Your task to perform on an android device: turn on data saver in the chrome app Image 0: 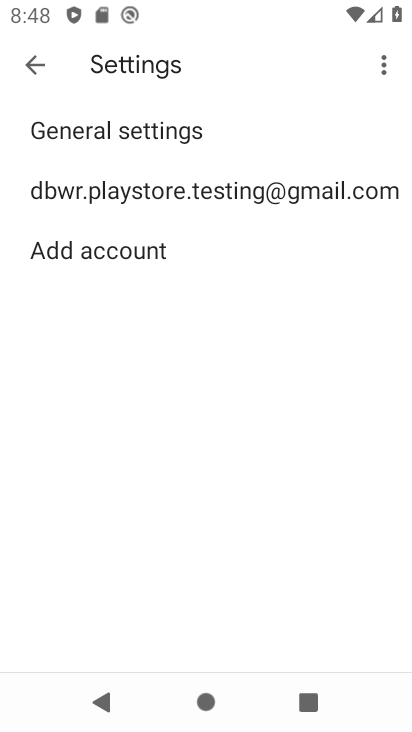
Step 0: press home button
Your task to perform on an android device: turn on data saver in the chrome app Image 1: 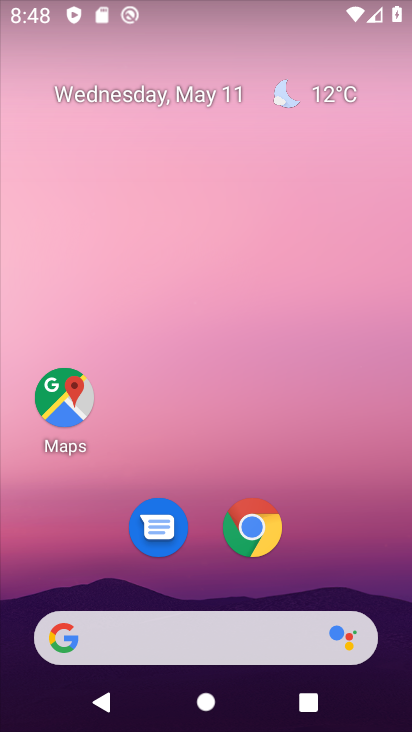
Step 1: click (249, 521)
Your task to perform on an android device: turn on data saver in the chrome app Image 2: 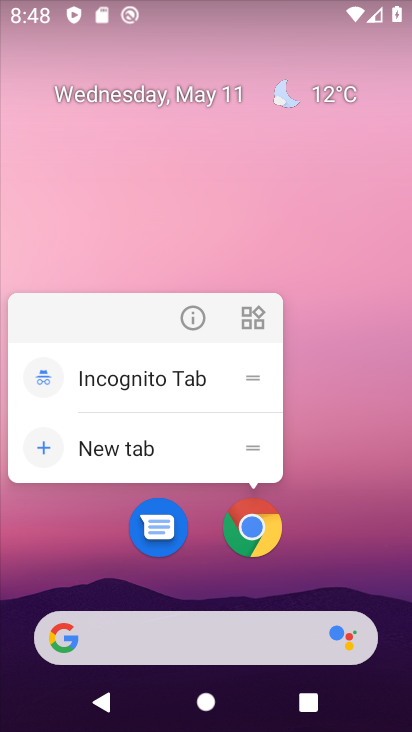
Step 2: click (253, 529)
Your task to perform on an android device: turn on data saver in the chrome app Image 3: 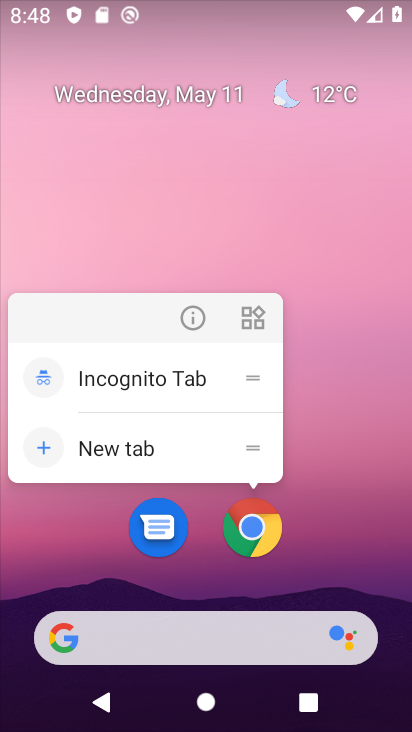
Step 3: click (260, 531)
Your task to perform on an android device: turn on data saver in the chrome app Image 4: 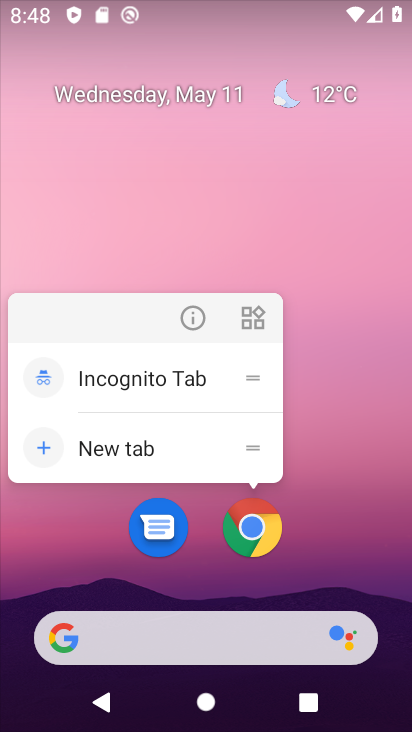
Step 4: drag from (366, 526) to (372, 2)
Your task to perform on an android device: turn on data saver in the chrome app Image 5: 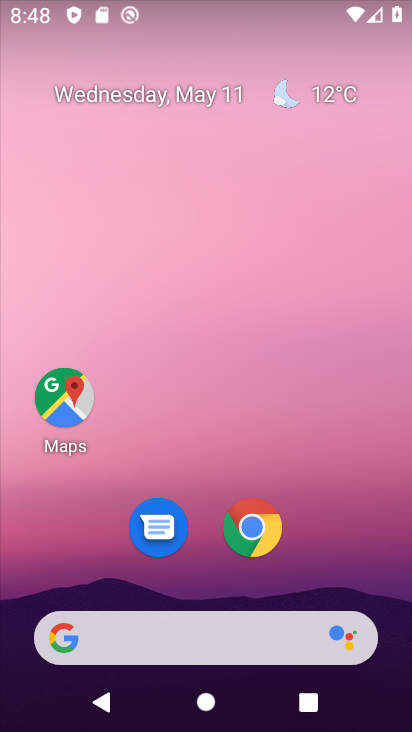
Step 5: drag from (312, 515) to (350, 84)
Your task to perform on an android device: turn on data saver in the chrome app Image 6: 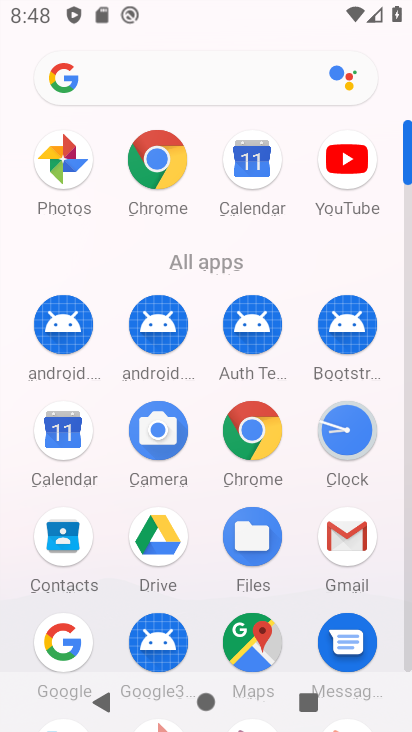
Step 6: click (160, 167)
Your task to perform on an android device: turn on data saver in the chrome app Image 7: 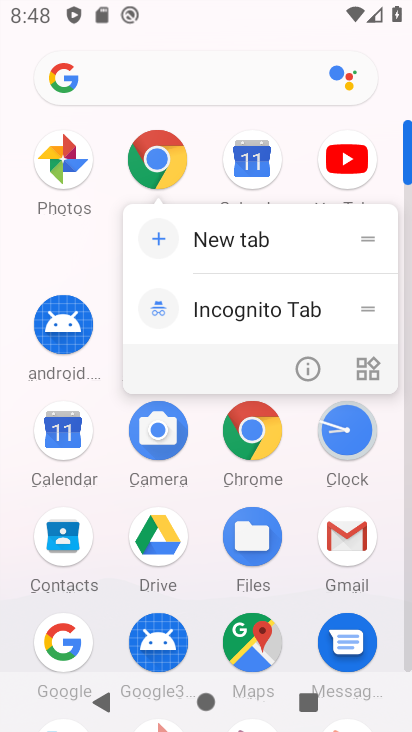
Step 7: click (258, 433)
Your task to perform on an android device: turn on data saver in the chrome app Image 8: 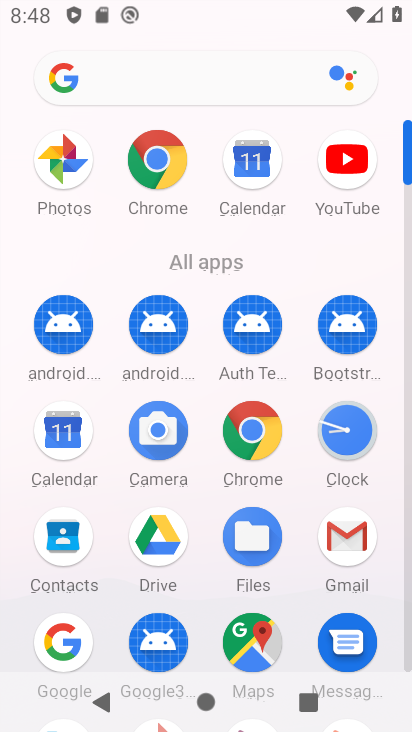
Step 8: click (258, 433)
Your task to perform on an android device: turn on data saver in the chrome app Image 9: 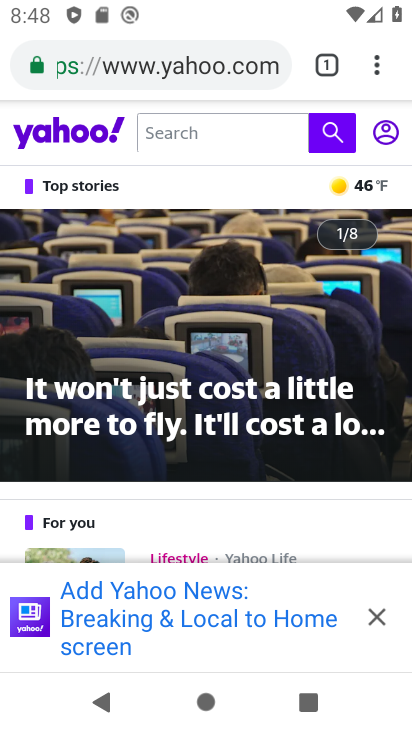
Step 9: drag from (375, 63) to (177, 576)
Your task to perform on an android device: turn on data saver in the chrome app Image 10: 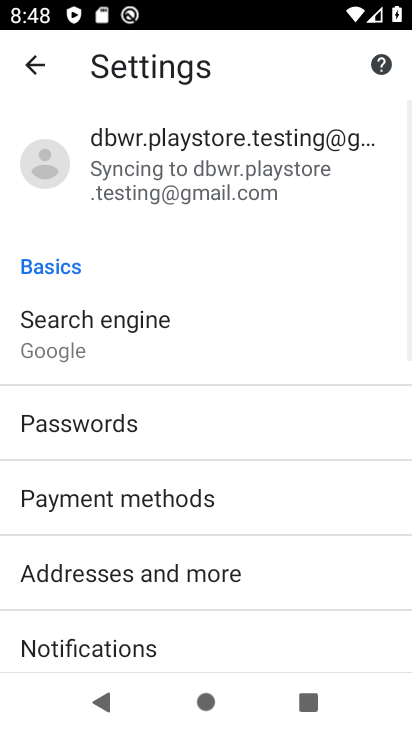
Step 10: drag from (181, 535) to (297, 115)
Your task to perform on an android device: turn on data saver in the chrome app Image 11: 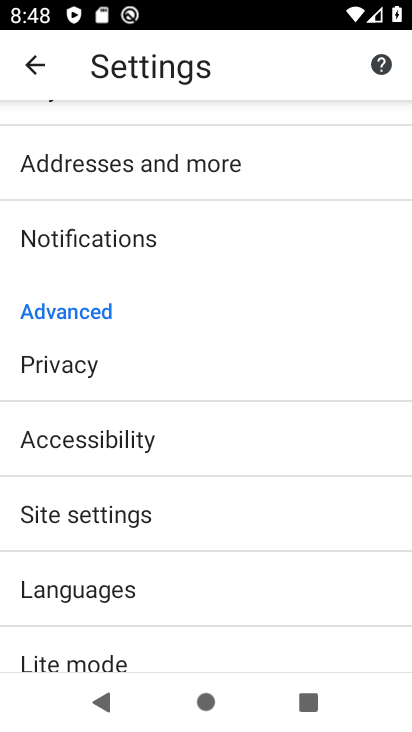
Step 11: click (146, 520)
Your task to perform on an android device: turn on data saver in the chrome app Image 12: 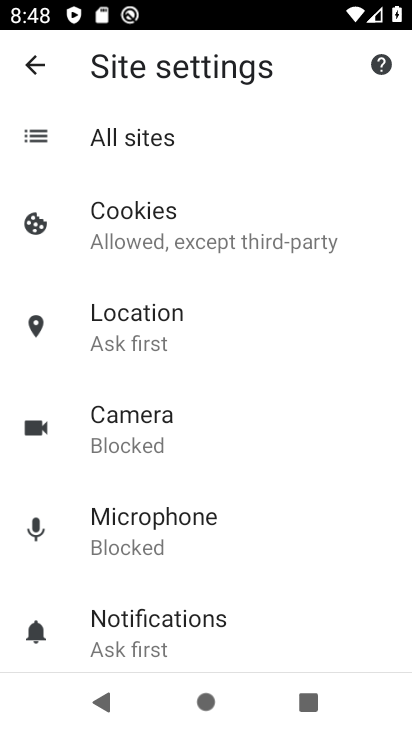
Step 12: click (32, 64)
Your task to perform on an android device: turn on data saver in the chrome app Image 13: 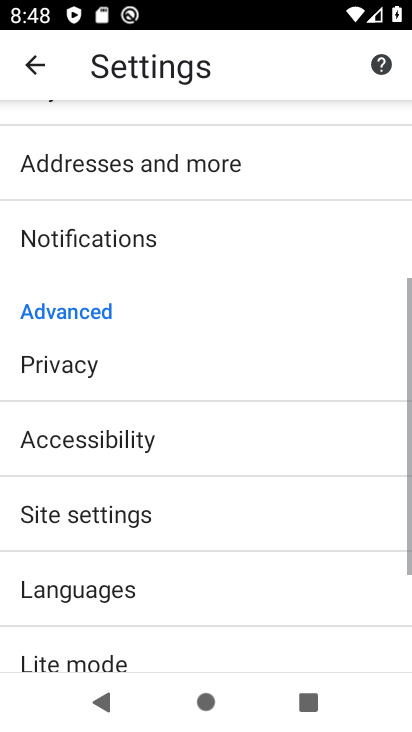
Step 13: drag from (284, 642) to (342, 198)
Your task to perform on an android device: turn on data saver in the chrome app Image 14: 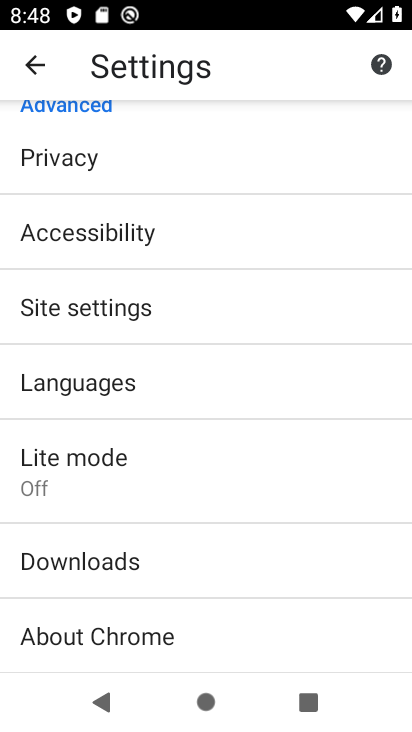
Step 14: click (81, 482)
Your task to perform on an android device: turn on data saver in the chrome app Image 15: 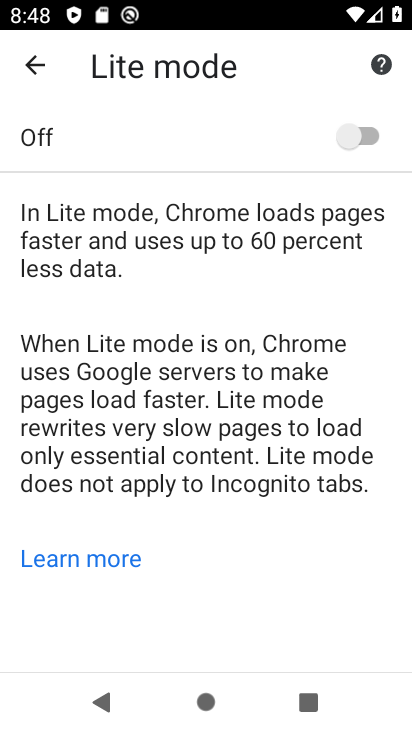
Step 15: click (375, 132)
Your task to perform on an android device: turn on data saver in the chrome app Image 16: 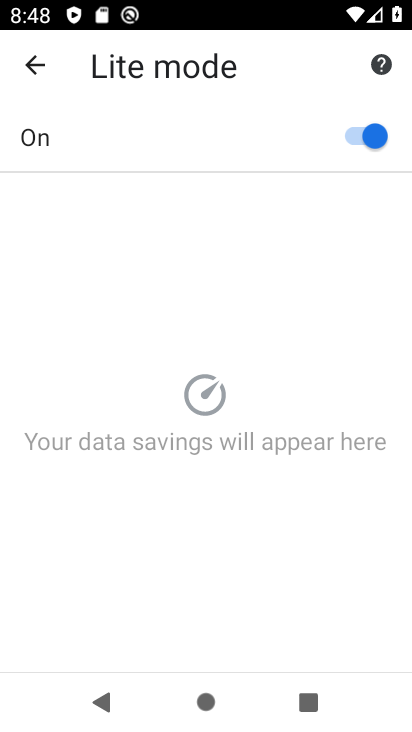
Step 16: task complete